Your task to perform on an android device: Go to Android settings Image 0: 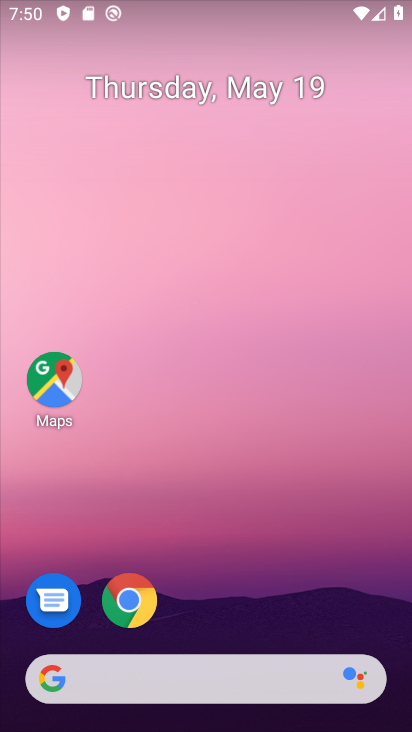
Step 0: drag from (256, 633) to (284, 7)
Your task to perform on an android device: Go to Android settings Image 1: 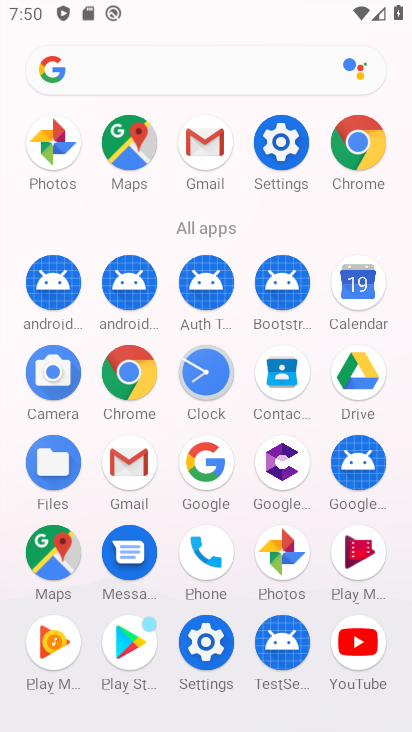
Step 1: click (287, 141)
Your task to perform on an android device: Go to Android settings Image 2: 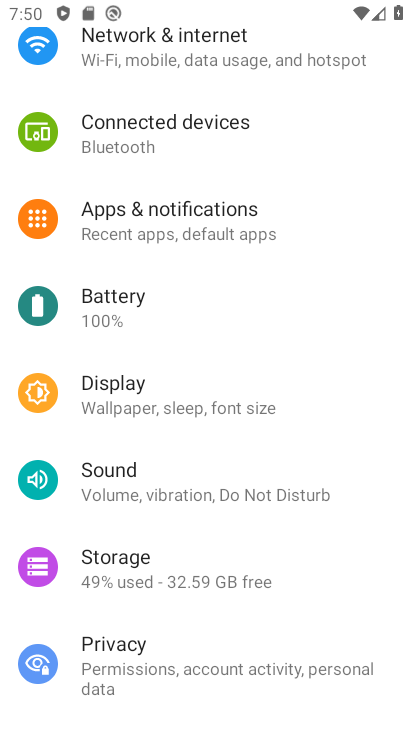
Step 2: task complete